Your task to perform on an android device: Go to Reddit.com Image 0: 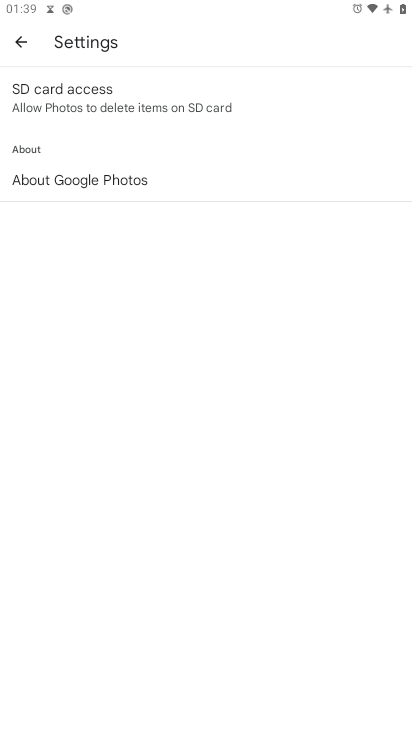
Step 0: press home button
Your task to perform on an android device: Go to Reddit.com Image 1: 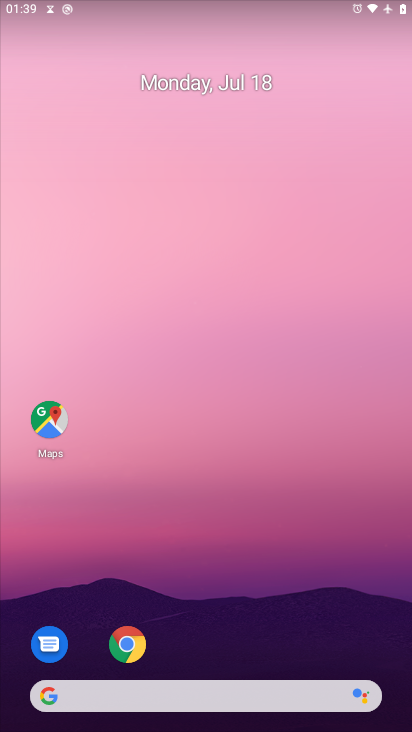
Step 1: click (42, 697)
Your task to perform on an android device: Go to Reddit.com Image 2: 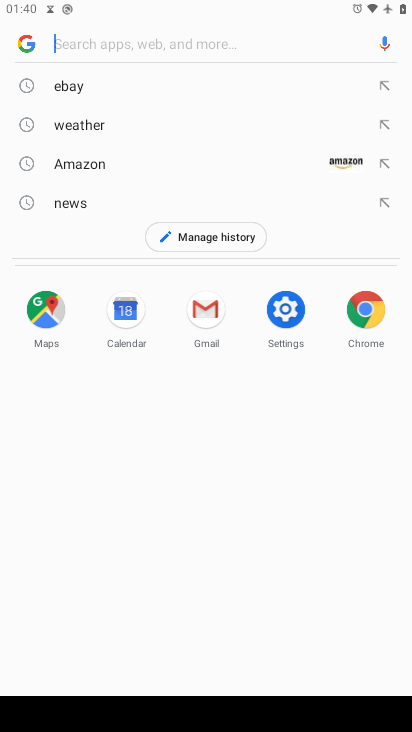
Step 2: type " Reddit.com"
Your task to perform on an android device: Go to Reddit.com Image 3: 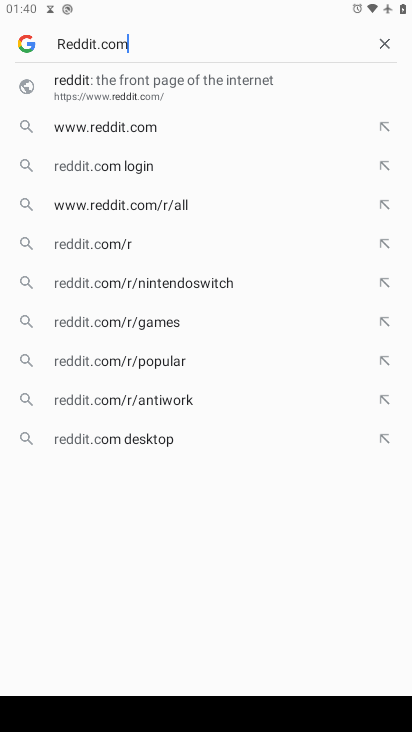
Step 3: press enter
Your task to perform on an android device: Go to Reddit.com Image 4: 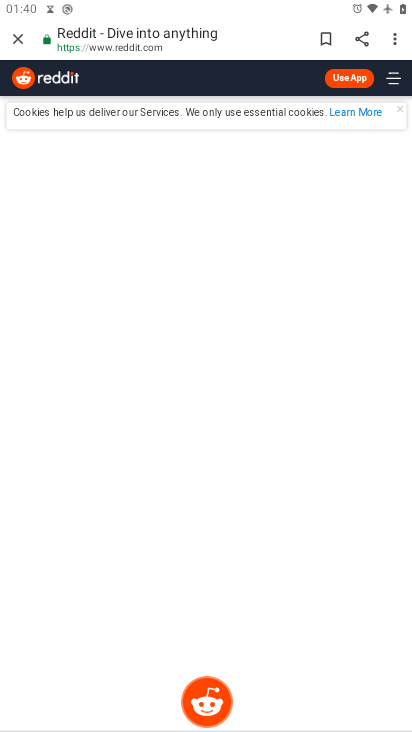
Step 4: task complete